Your task to perform on an android device: turn off location history Image 0: 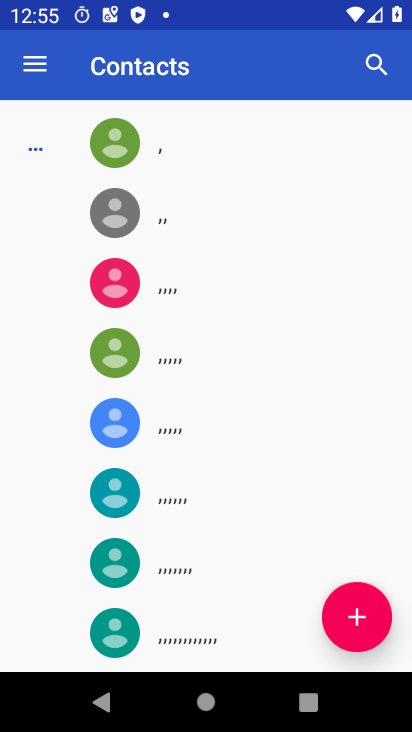
Step 0: press home button
Your task to perform on an android device: turn off location history Image 1: 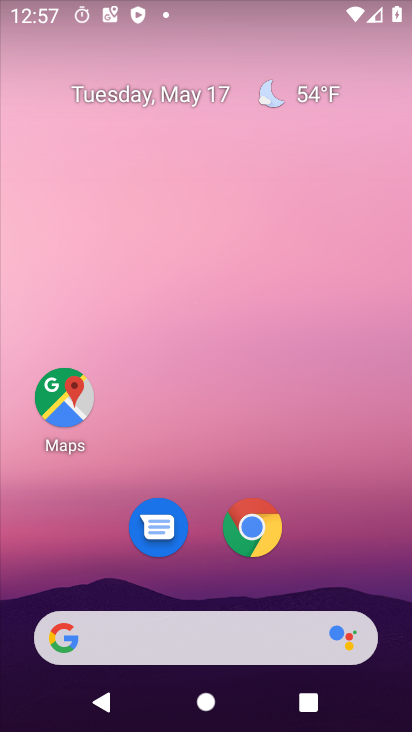
Step 1: click (232, 346)
Your task to perform on an android device: turn off location history Image 2: 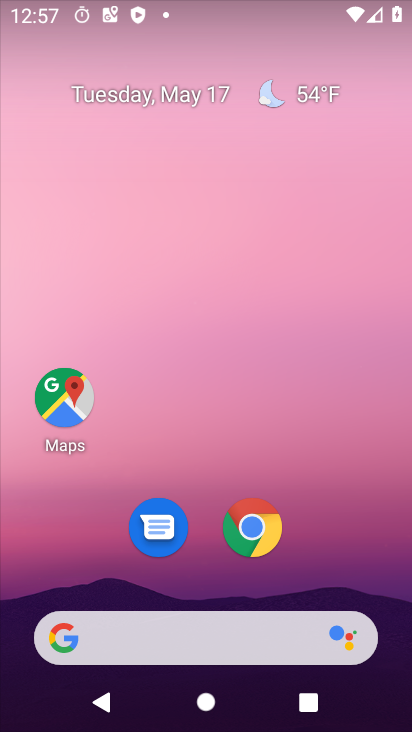
Step 2: drag from (205, 686) to (192, 253)
Your task to perform on an android device: turn off location history Image 3: 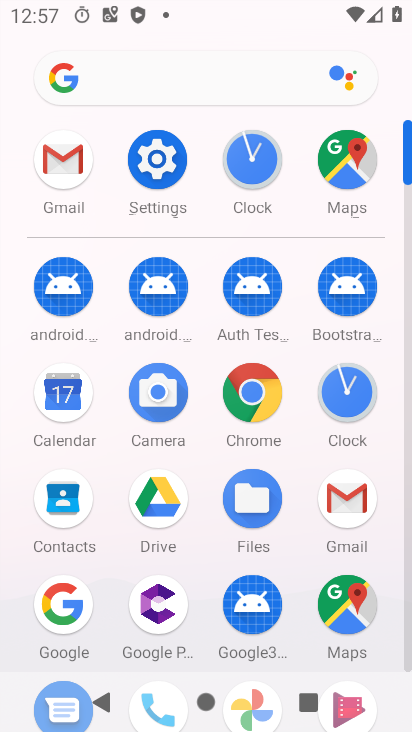
Step 3: click (152, 142)
Your task to perform on an android device: turn off location history Image 4: 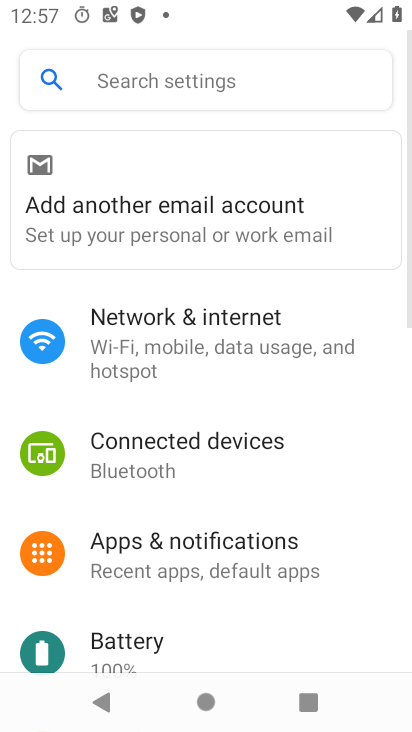
Step 4: click (192, 89)
Your task to perform on an android device: turn off location history Image 5: 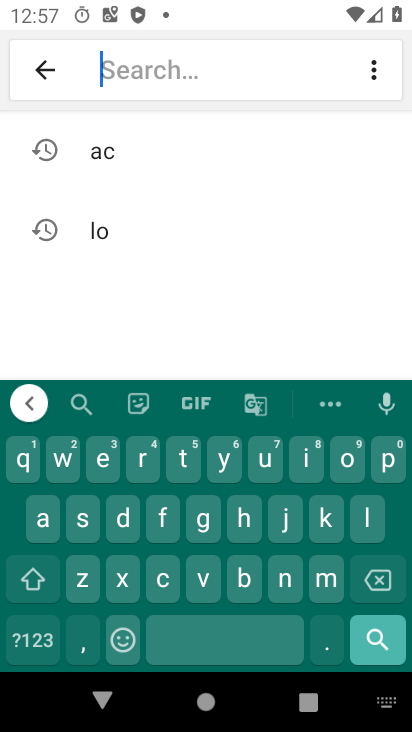
Step 5: click (125, 221)
Your task to perform on an android device: turn off location history Image 6: 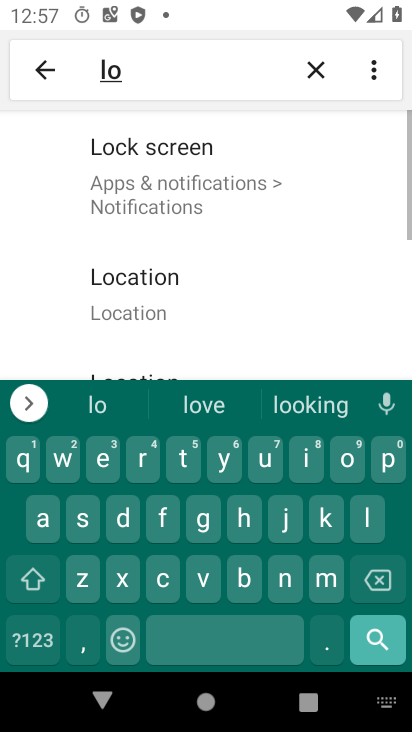
Step 6: click (167, 284)
Your task to perform on an android device: turn off location history Image 7: 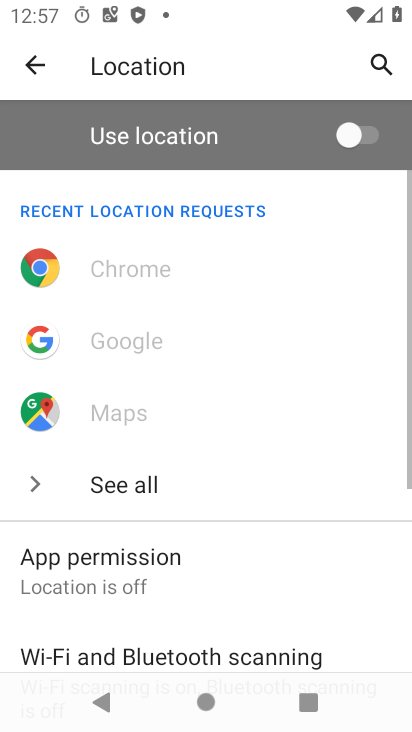
Step 7: drag from (198, 572) to (222, 179)
Your task to perform on an android device: turn off location history Image 8: 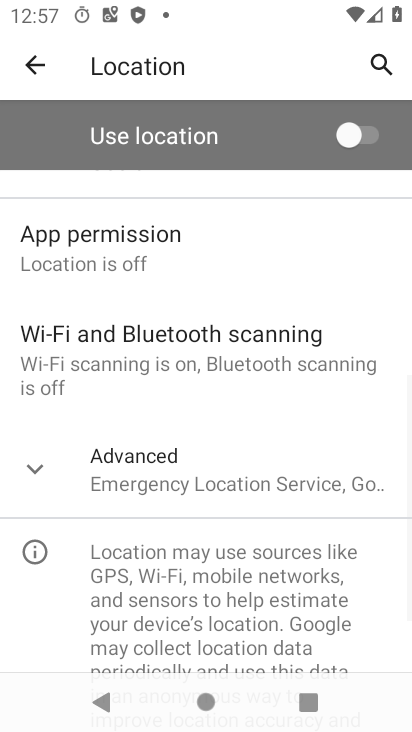
Step 8: click (78, 473)
Your task to perform on an android device: turn off location history Image 9: 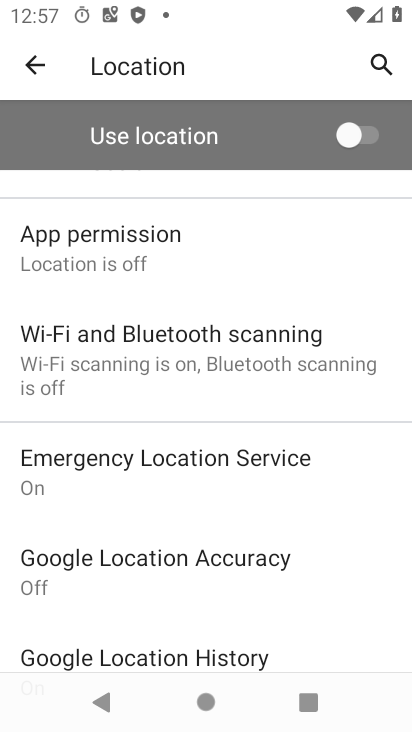
Step 9: click (206, 633)
Your task to perform on an android device: turn off location history Image 10: 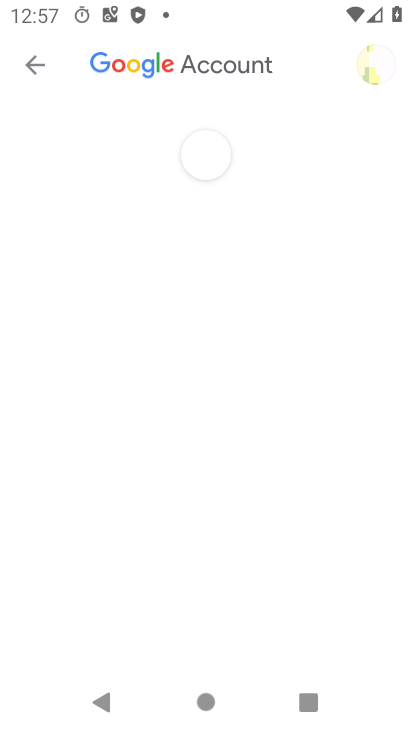
Step 10: task complete